Your task to perform on an android device: Open Wikipedia Image 0: 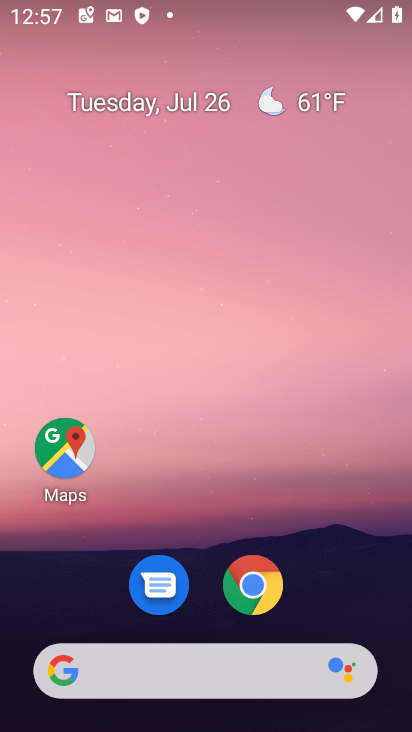
Step 0: press home button
Your task to perform on an android device: Open Wikipedia Image 1: 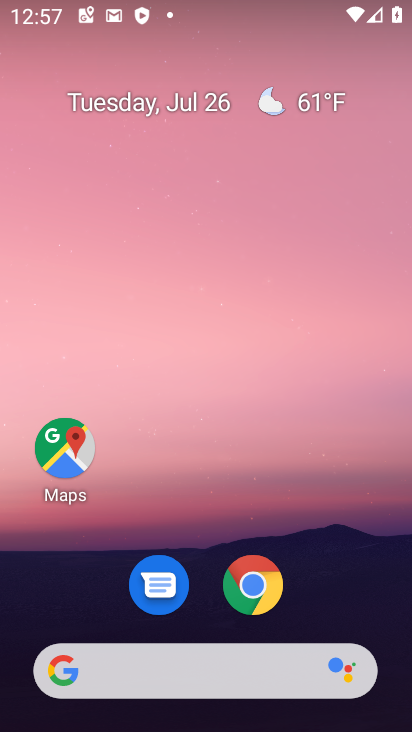
Step 1: drag from (191, 672) to (306, 113)
Your task to perform on an android device: Open Wikipedia Image 2: 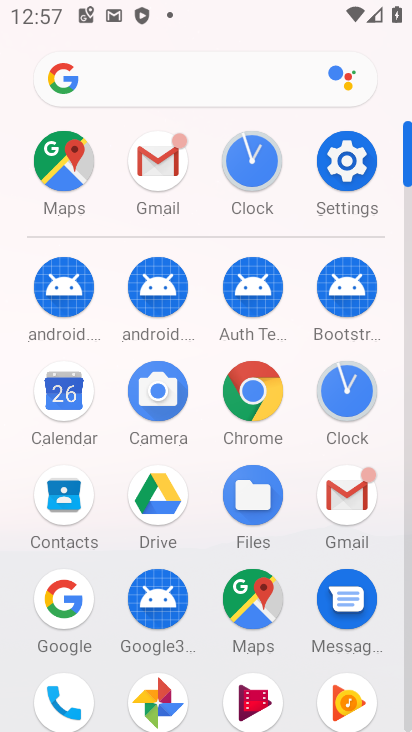
Step 2: click (249, 378)
Your task to perform on an android device: Open Wikipedia Image 3: 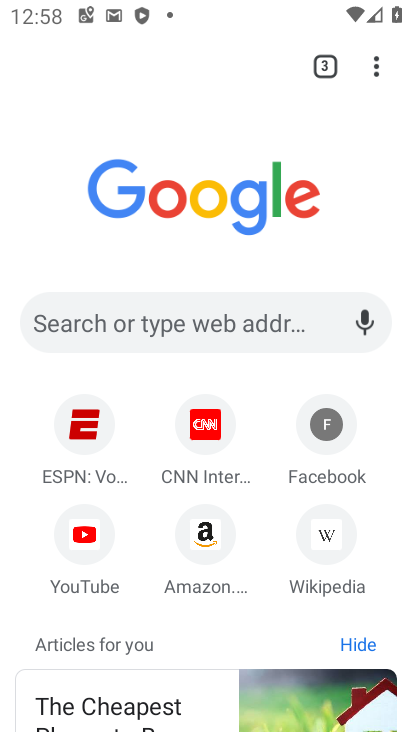
Step 3: click (318, 544)
Your task to perform on an android device: Open Wikipedia Image 4: 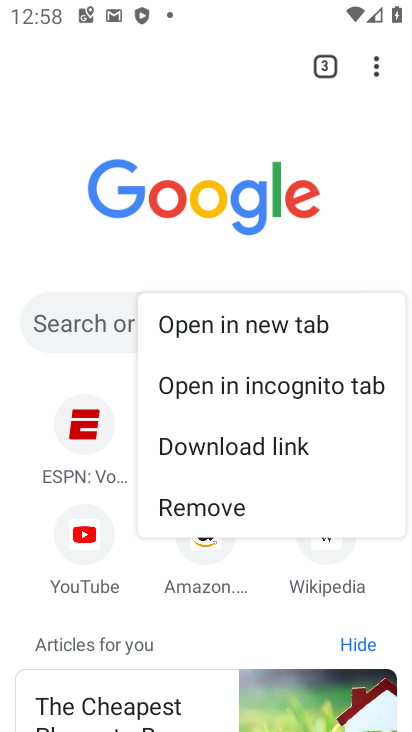
Step 4: click (323, 562)
Your task to perform on an android device: Open Wikipedia Image 5: 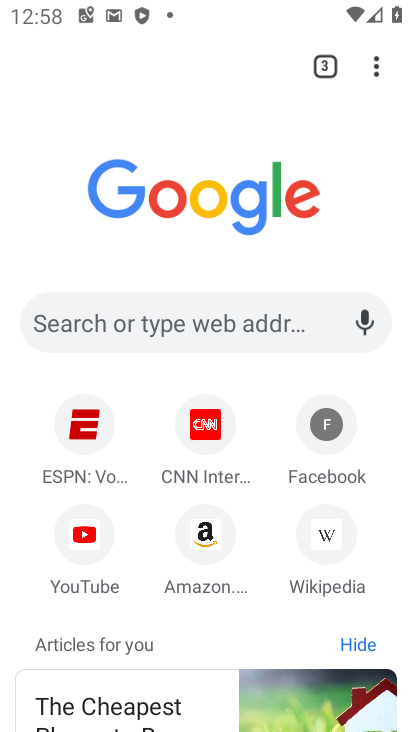
Step 5: click (326, 541)
Your task to perform on an android device: Open Wikipedia Image 6: 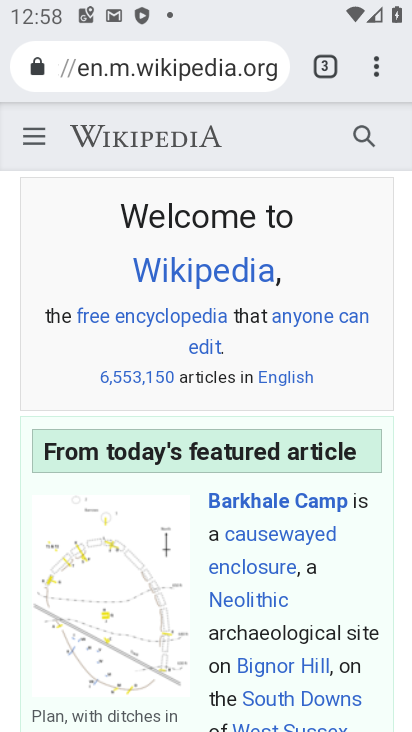
Step 6: task complete